Your task to perform on an android device: turn off smart reply in the gmail app Image 0: 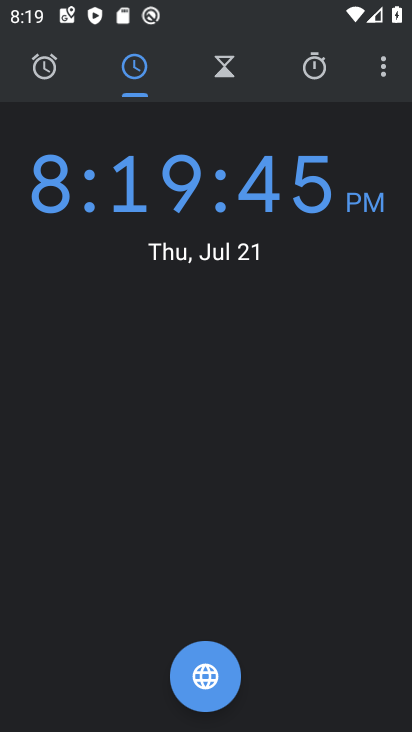
Step 0: press home button
Your task to perform on an android device: turn off smart reply in the gmail app Image 1: 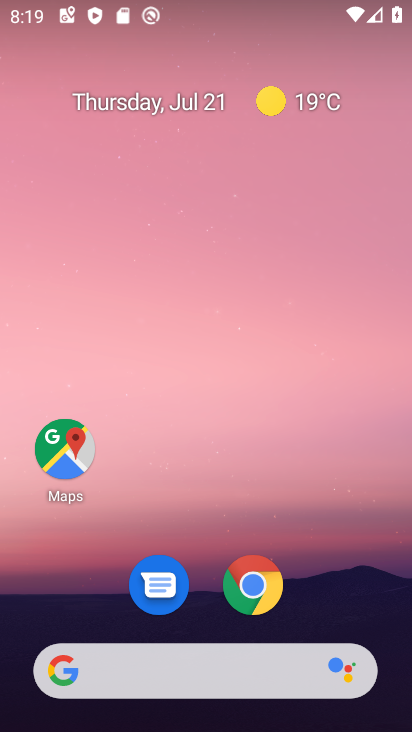
Step 1: drag from (316, 560) to (306, 30)
Your task to perform on an android device: turn off smart reply in the gmail app Image 2: 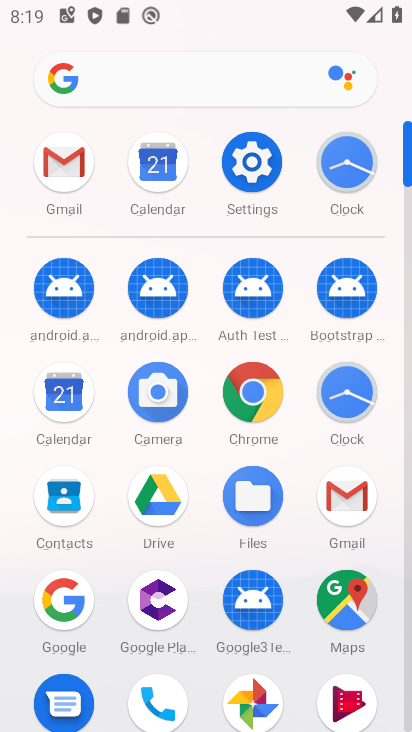
Step 2: click (69, 146)
Your task to perform on an android device: turn off smart reply in the gmail app Image 3: 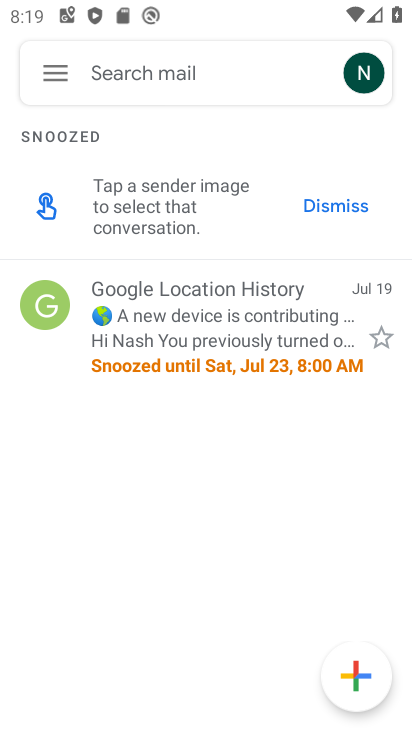
Step 3: click (54, 78)
Your task to perform on an android device: turn off smart reply in the gmail app Image 4: 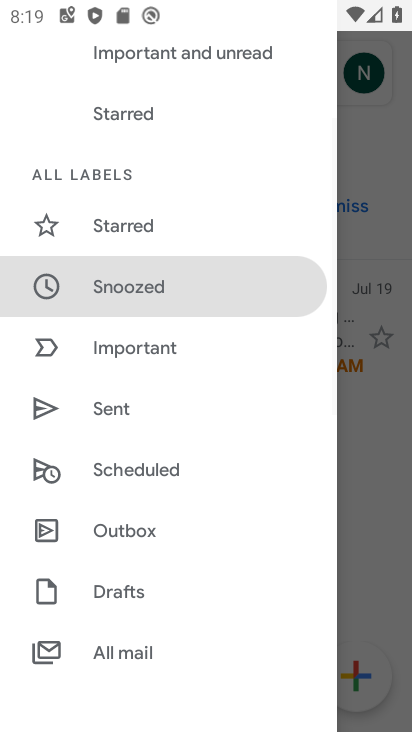
Step 4: drag from (192, 595) to (180, 40)
Your task to perform on an android device: turn off smart reply in the gmail app Image 5: 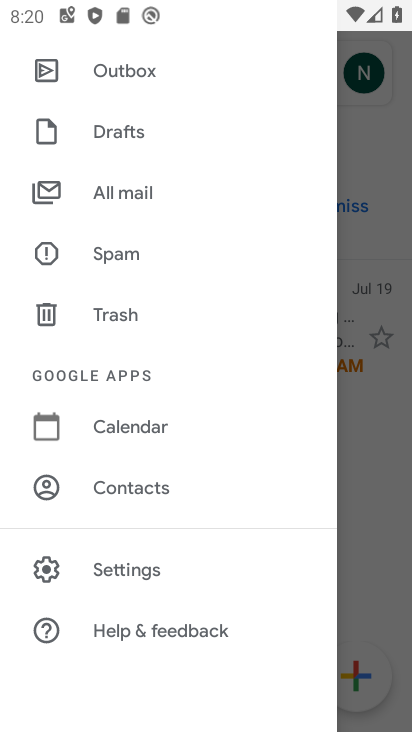
Step 5: click (136, 565)
Your task to perform on an android device: turn off smart reply in the gmail app Image 6: 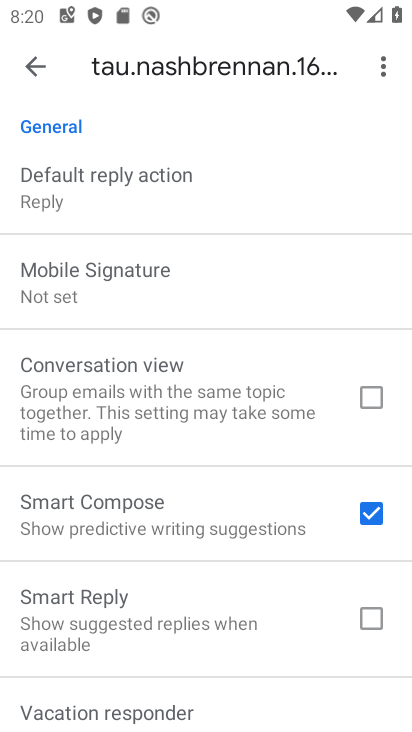
Step 6: task complete